Your task to perform on an android device: Show me popular games on the Play Store Image 0: 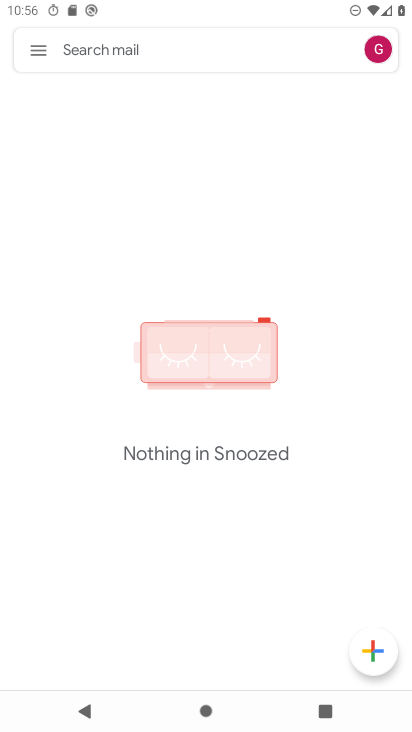
Step 0: press home button
Your task to perform on an android device: Show me popular games on the Play Store Image 1: 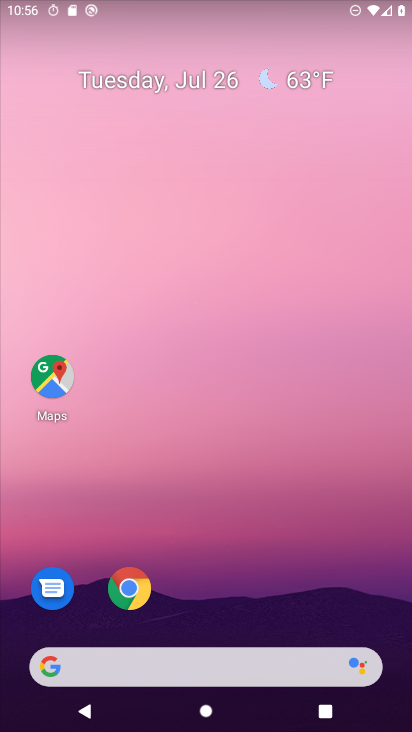
Step 1: drag from (250, 589) to (303, 92)
Your task to perform on an android device: Show me popular games on the Play Store Image 2: 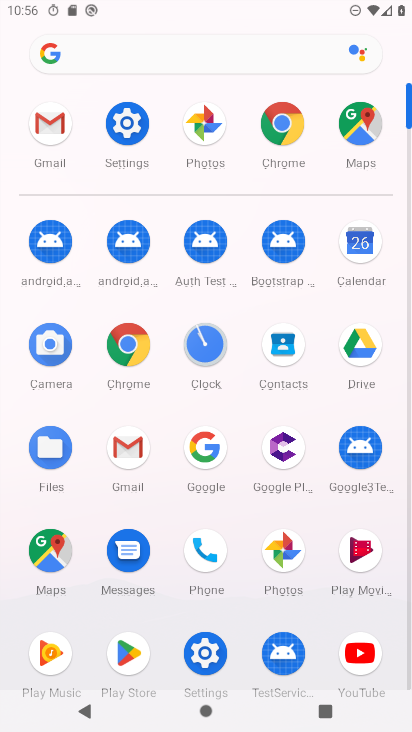
Step 2: click (124, 655)
Your task to perform on an android device: Show me popular games on the Play Store Image 3: 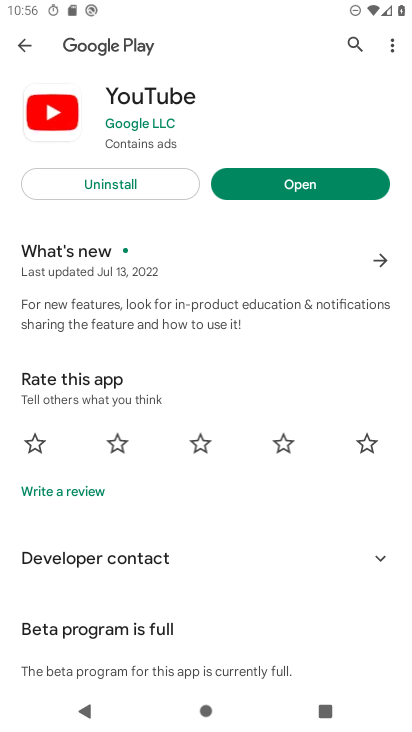
Step 3: click (30, 45)
Your task to perform on an android device: Show me popular games on the Play Store Image 4: 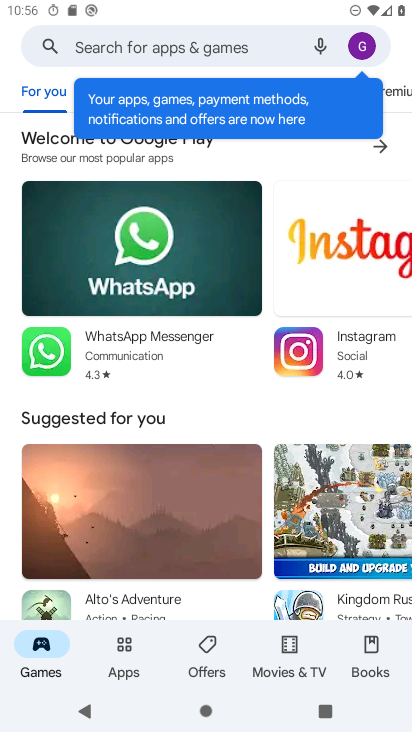
Step 4: click (279, 149)
Your task to perform on an android device: Show me popular games on the Play Store Image 5: 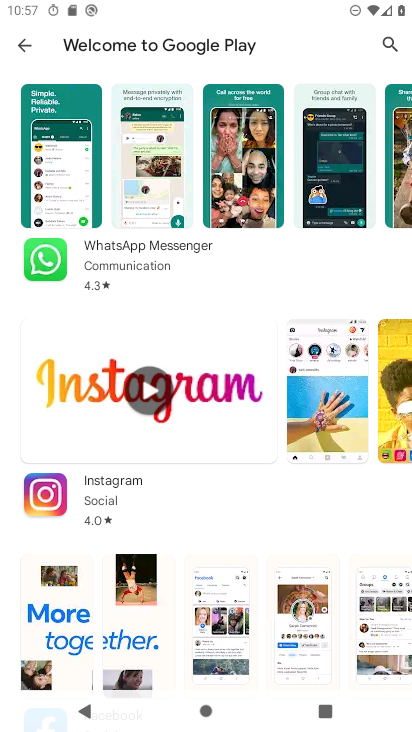
Step 5: click (34, 53)
Your task to perform on an android device: Show me popular games on the Play Store Image 6: 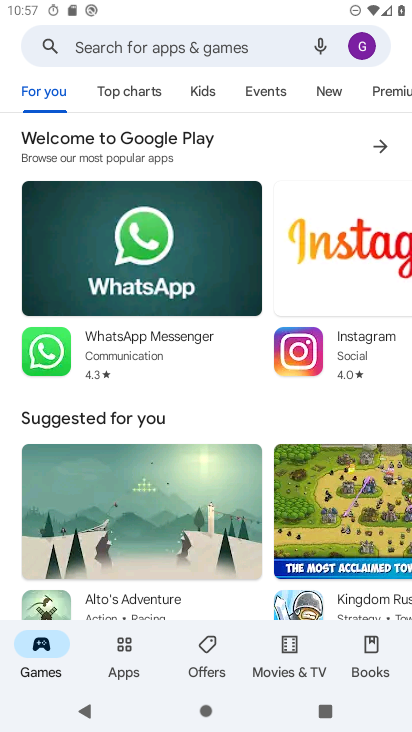
Step 6: click (133, 102)
Your task to perform on an android device: Show me popular games on the Play Store Image 7: 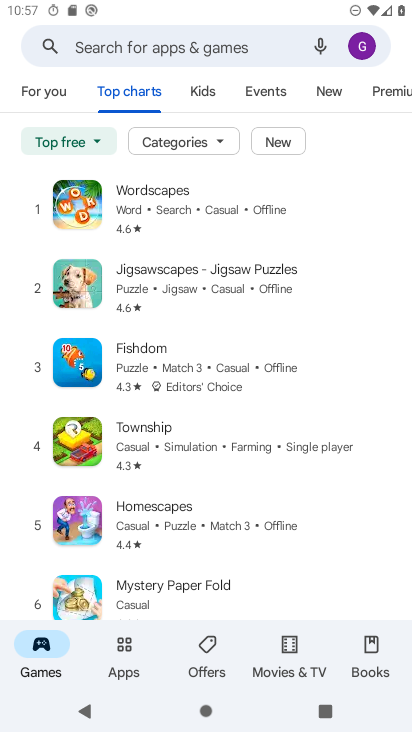
Step 7: task complete